Your task to perform on an android device: What's the weather? Image 0: 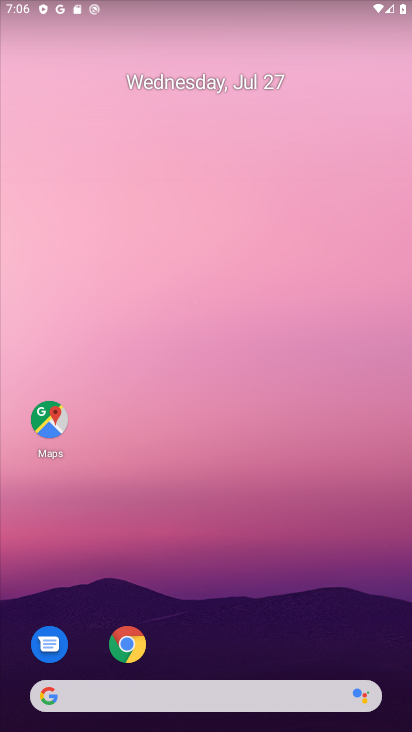
Step 0: click (194, 690)
Your task to perform on an android device: What's the weather? Image 1: 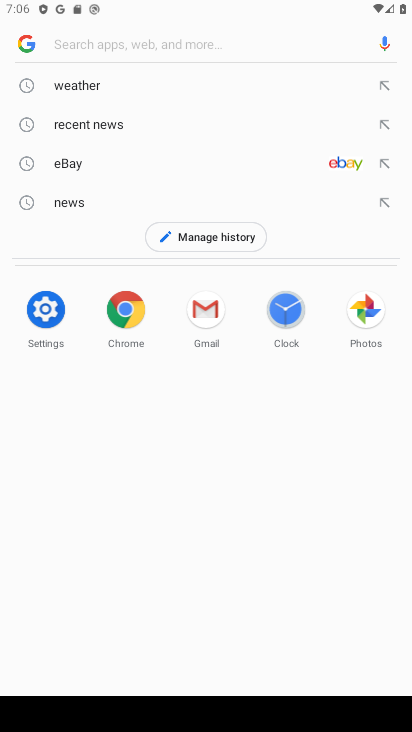
Step 1: type "What's the weather?"
Your task to perform on an android device: What's the weather? Image 2: 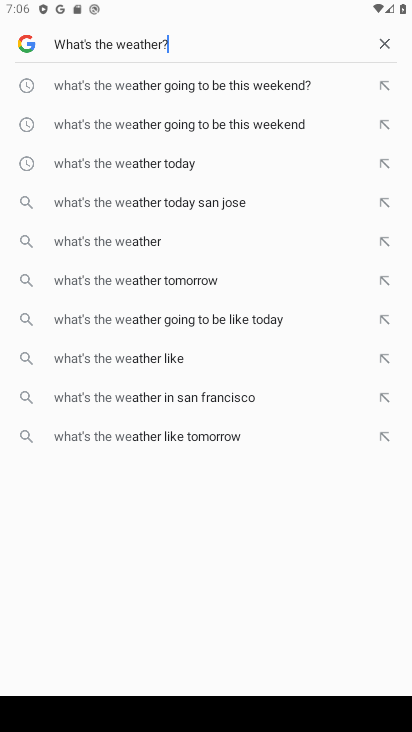
Step 2: press enter
Your task to perform on an android device: What's the weather? Image 3: 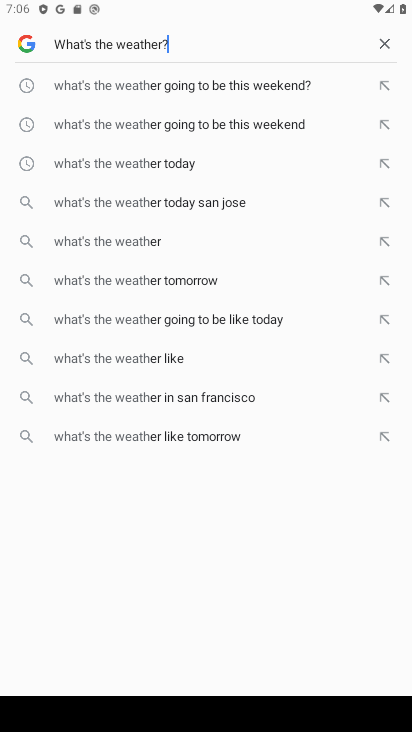
Step 3: type ""
Your task to perform on an android device: What's the weather? Image 4: 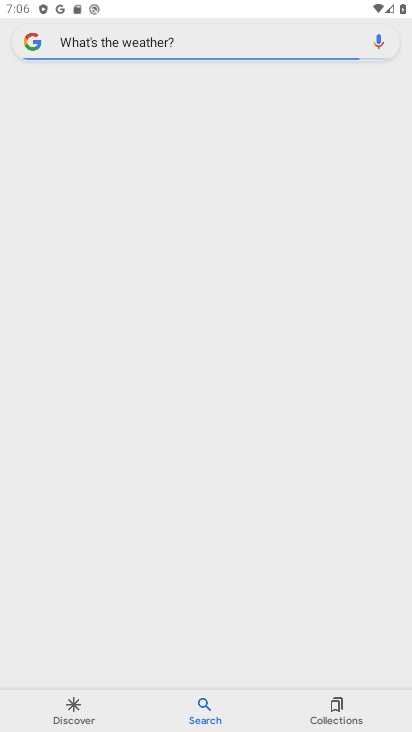
Step 4: task complete